Your task to perform on an android device: change your default location settings in chrome Image 0: 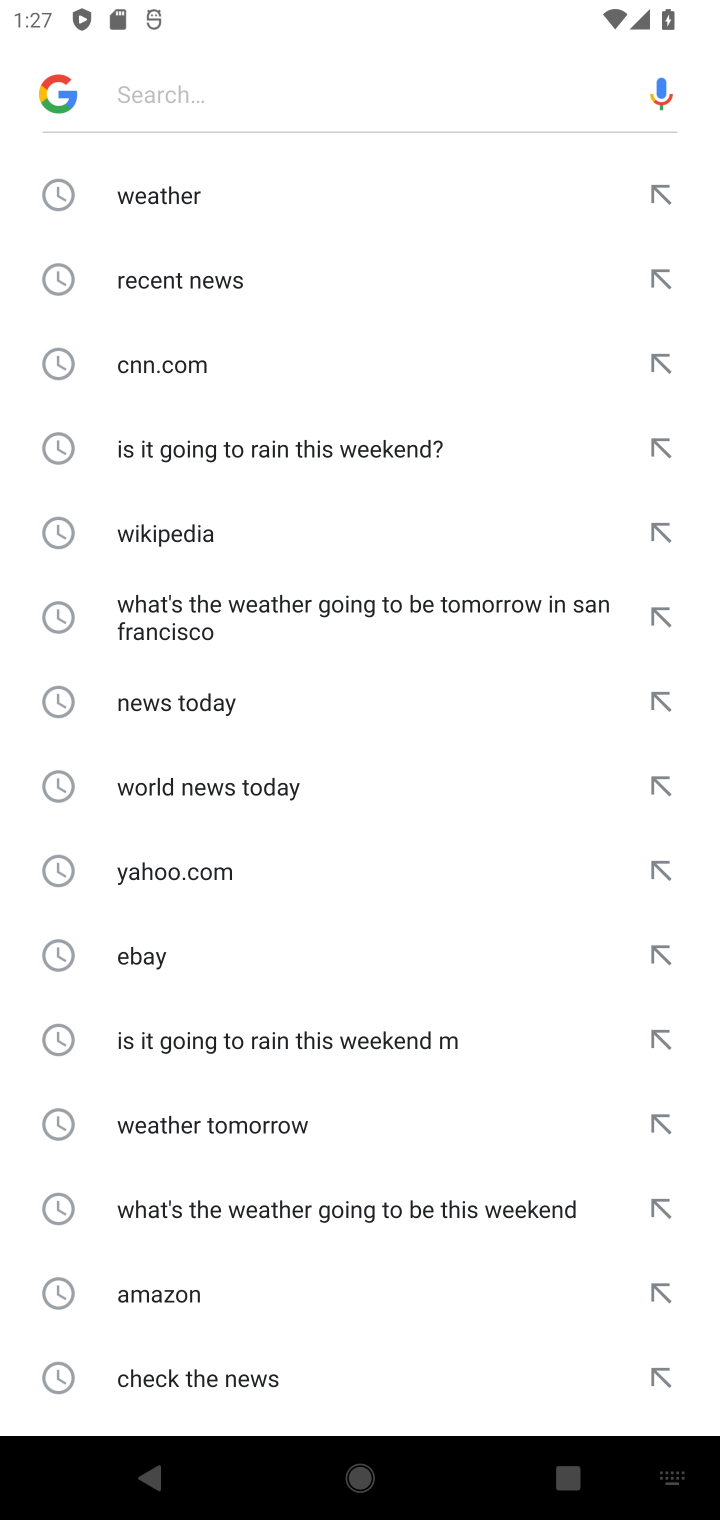
Step 0: press home button
Your task to perform on an android device: change your default location settings in chrome Image 1: 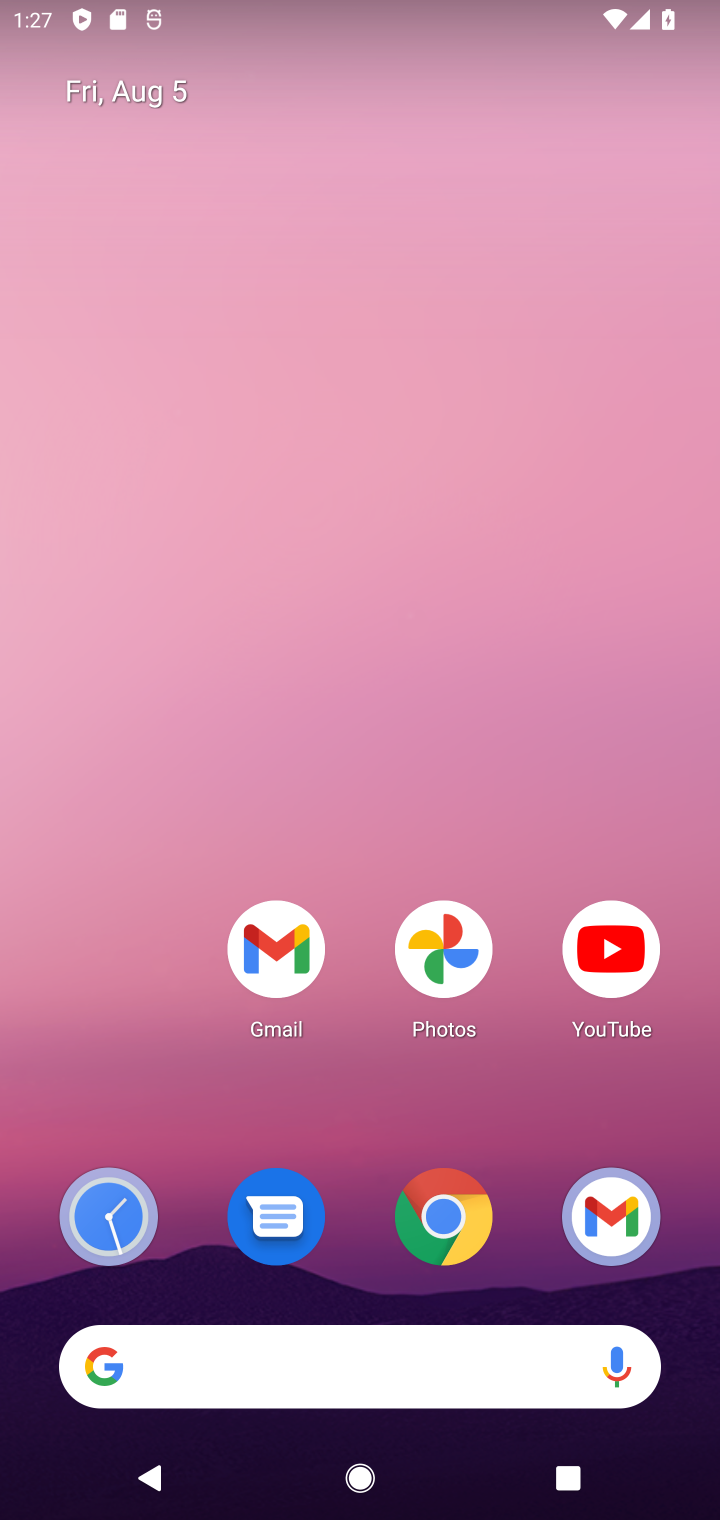
Step 1: click (425, 1229)
Your task to perform on an android device: change your default location settings in chrome Image 2: 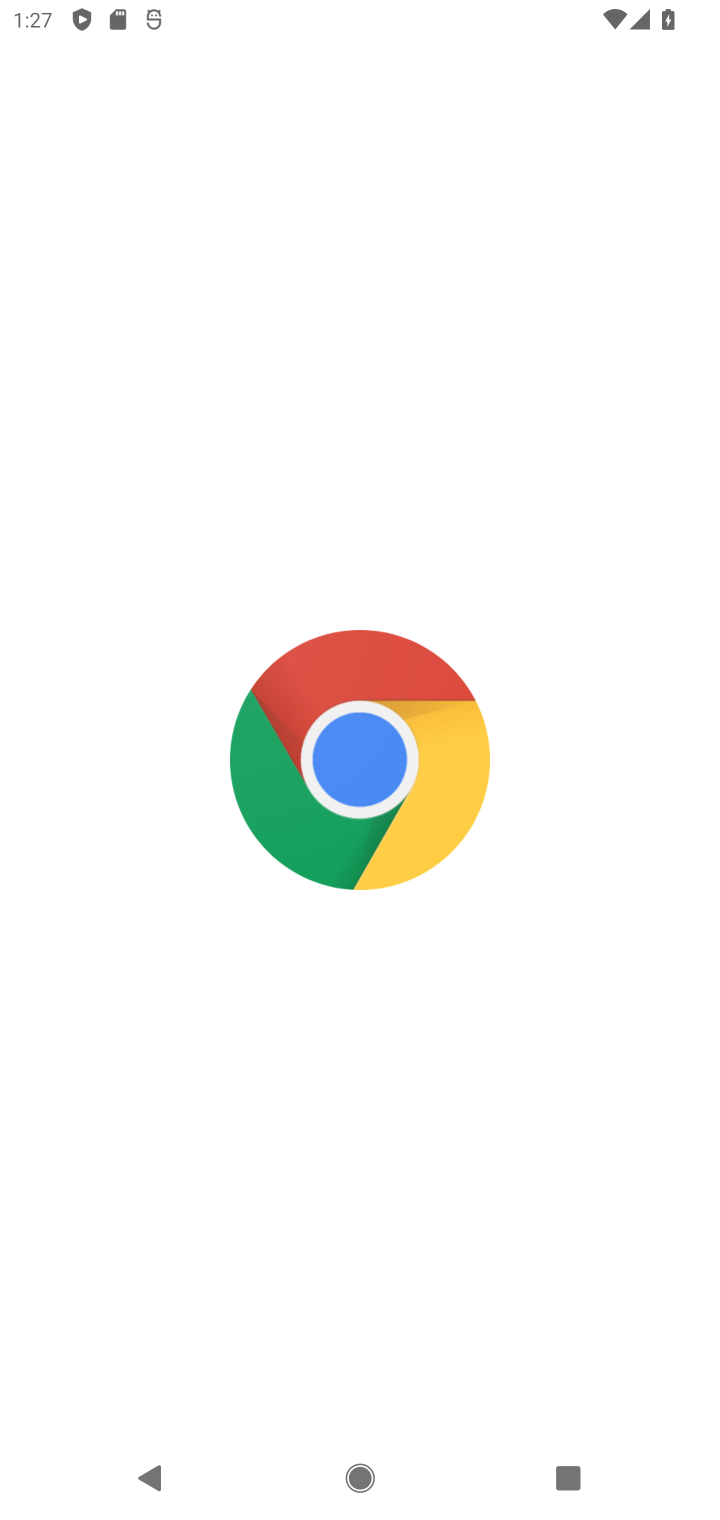
Step 2: click (425, 1229)
Your task to perform on an android device: change your default location settings in chrome Image 3: 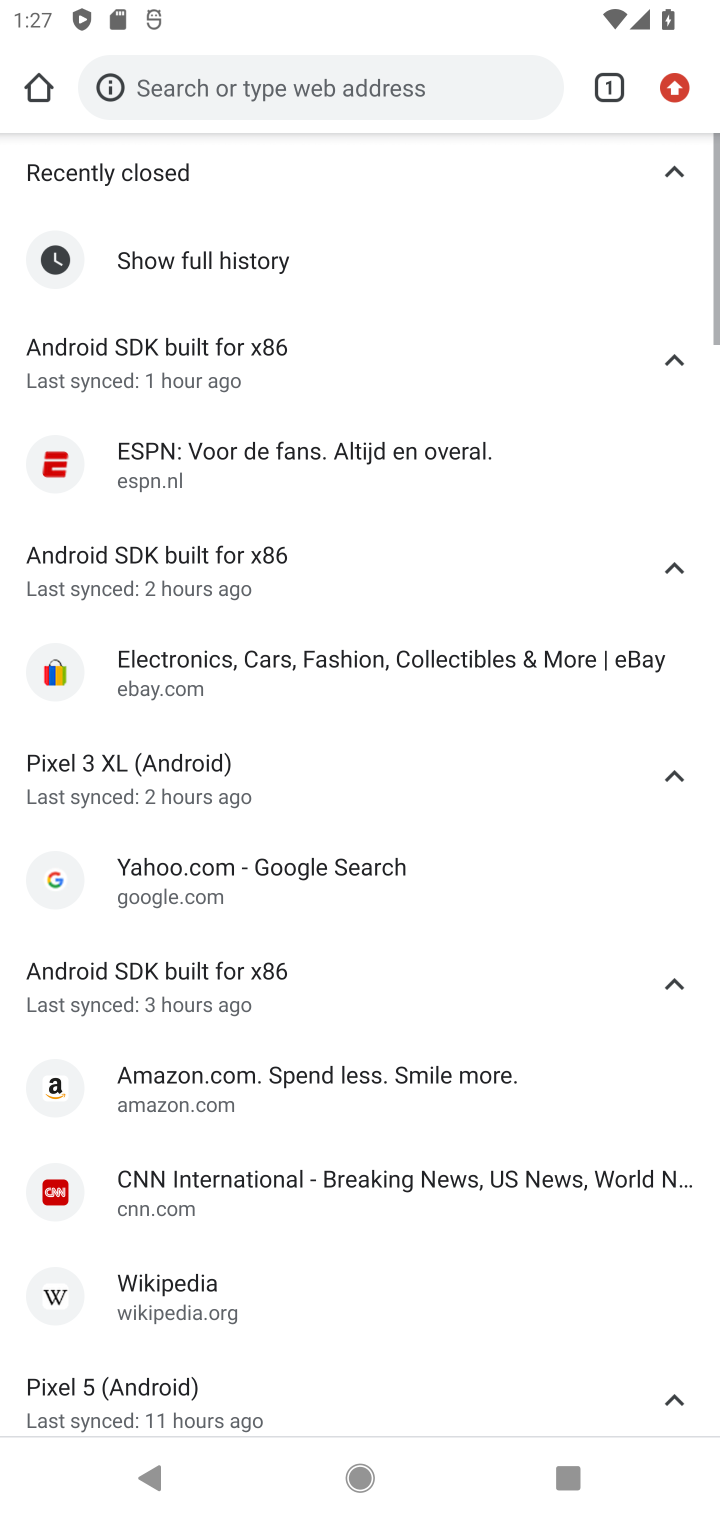
Step 3: click (673, 88)
Your task to perform on an android device: change your default location settings in chrome Image 4: 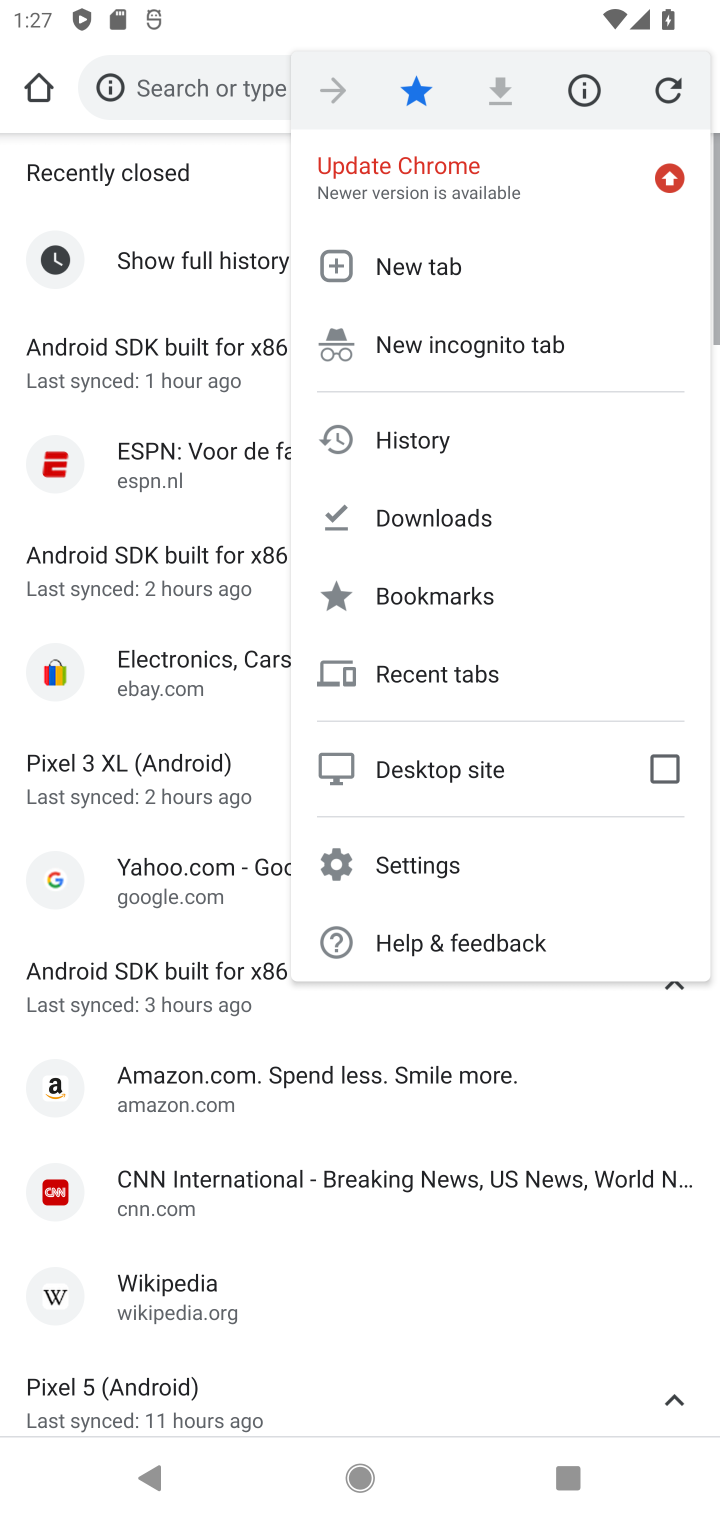
Step 4: click (467, 864)
Your task to perform on an android device: change your default location settings in chrome Image 5: 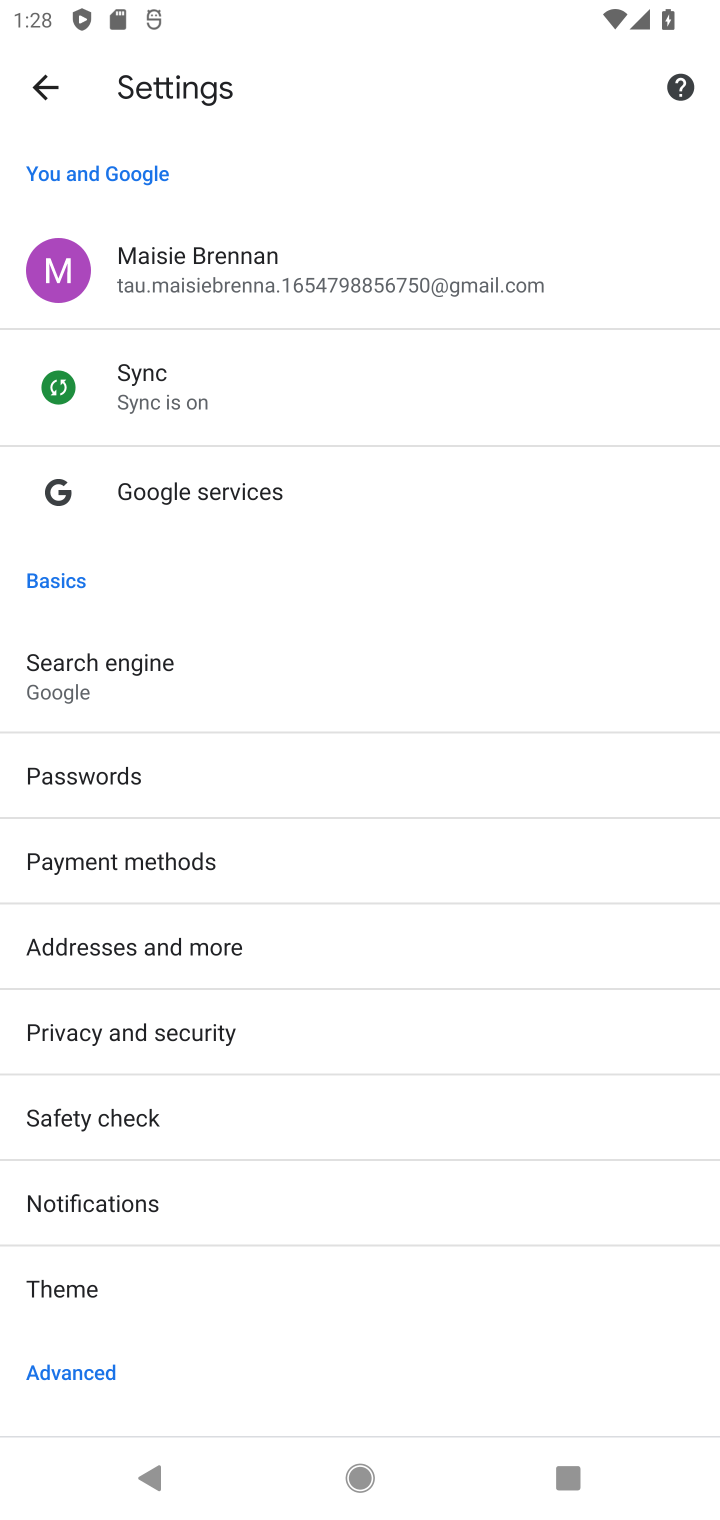
Step 5: drag from (402, 1091) to (281, 364)
Your task to perform on an android device: change your default location settings in chrome Image 6: 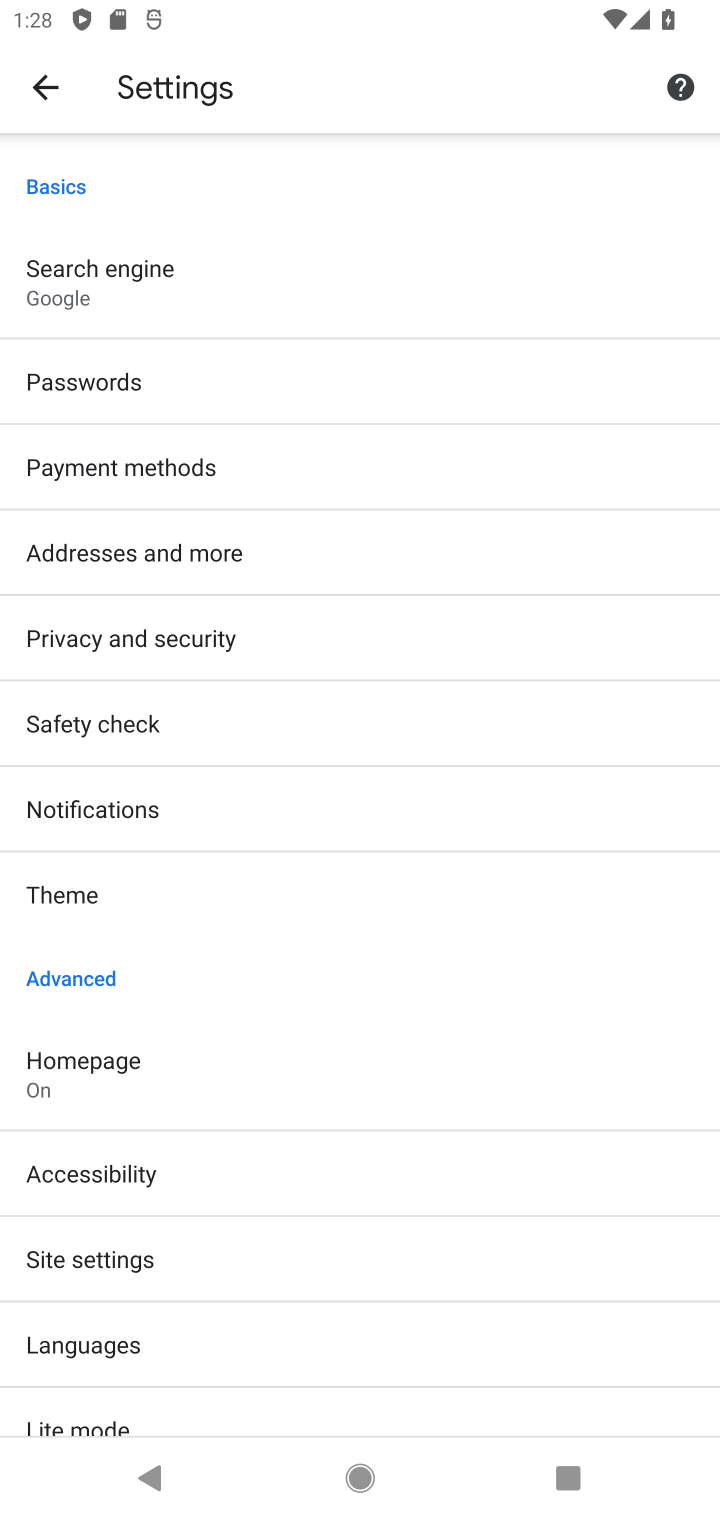
Step 6: click (194, 1255)
Your task to perform on an android device: change your default location settings in chrome Image 7: 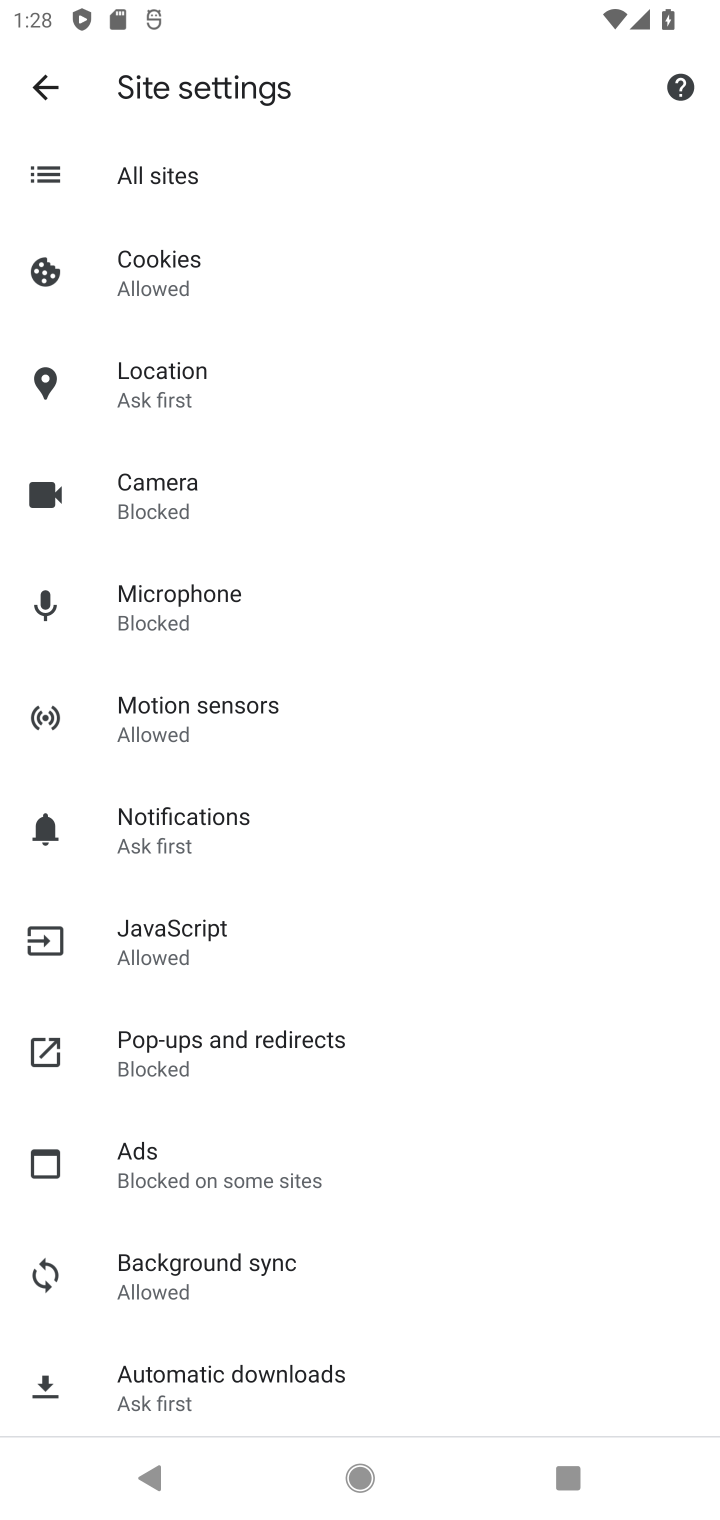
Step 7: click (255, 382)
Your task to perform on an android device: change your default location settings in chrome Image 8: 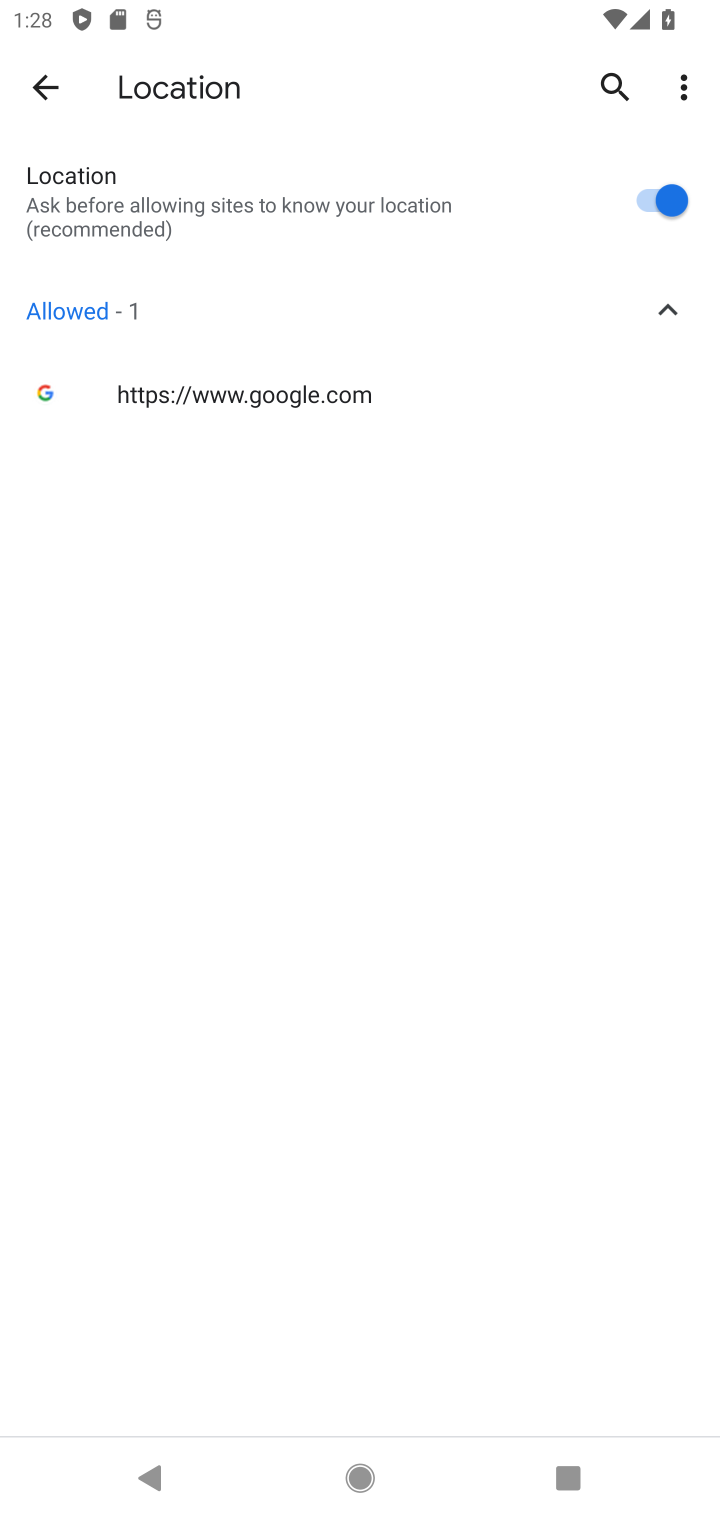
Step 8: click (676, 196)
Your task to perform on an android device: change your default location settings in chrome Image 9: 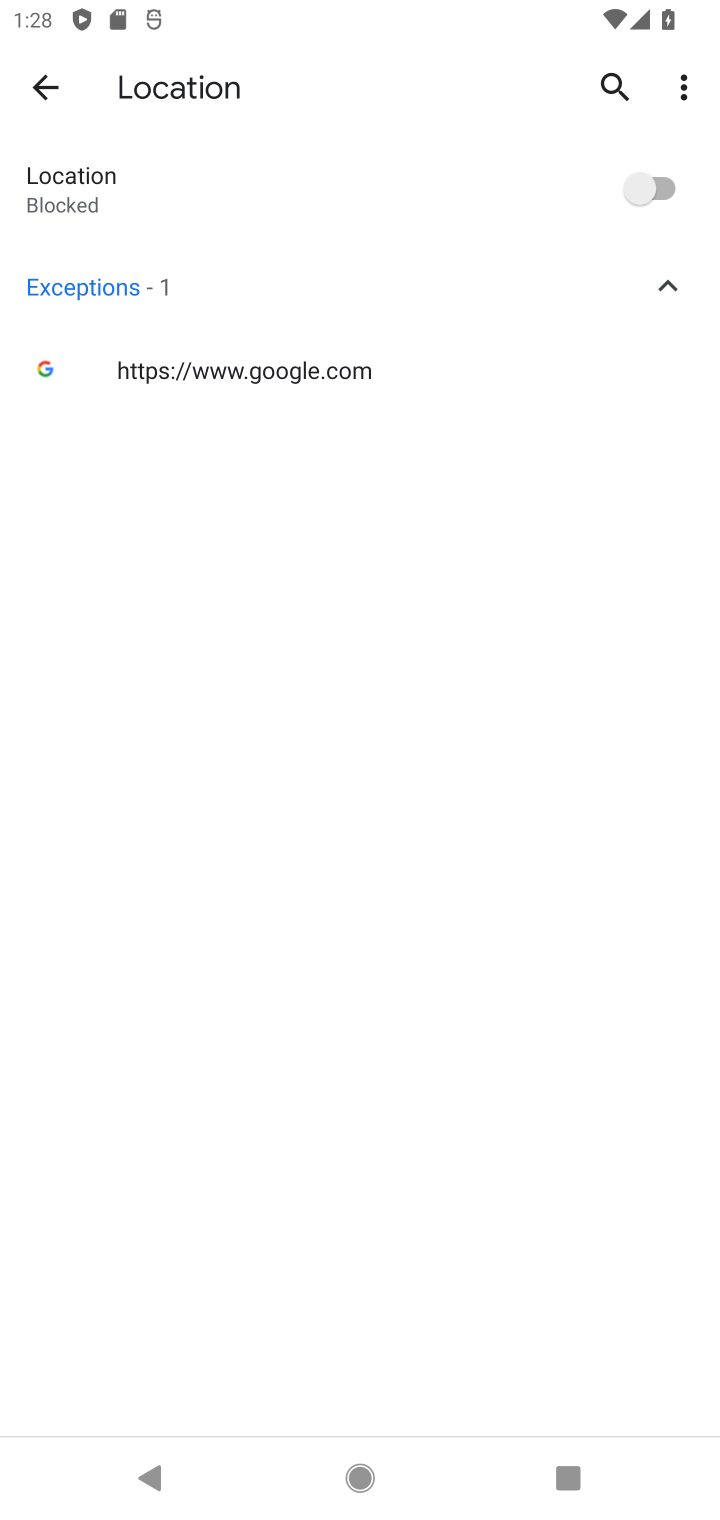
Step 9: task complete